Your task to perform on an android device: choose inbox layout in the gmail app Image 0: 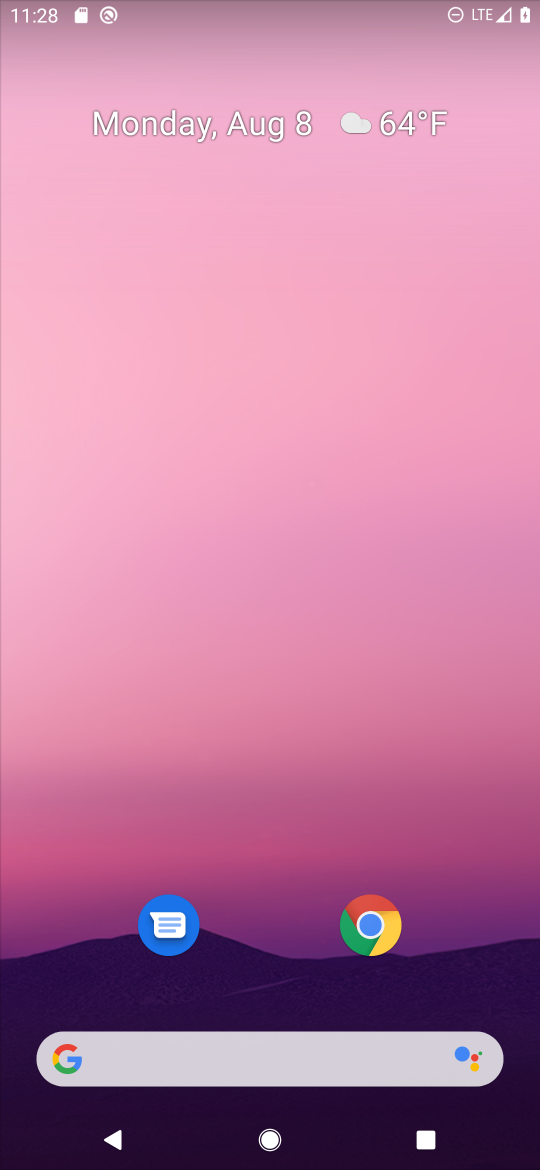
Step 0: drag from (252, 967) to (305, 167)
Your task to perform on an android device: choose inbox layout in the gmail app Image 1: 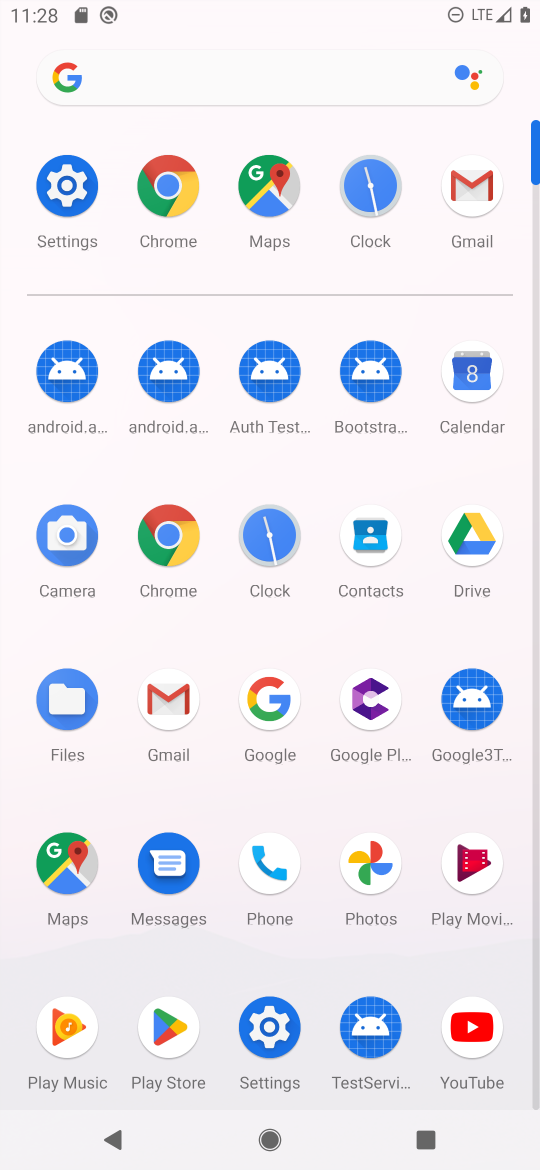
Step 1: click (174, 698)
Your task to perform on an android device: choose inbox layout in the gmail app Image 2: 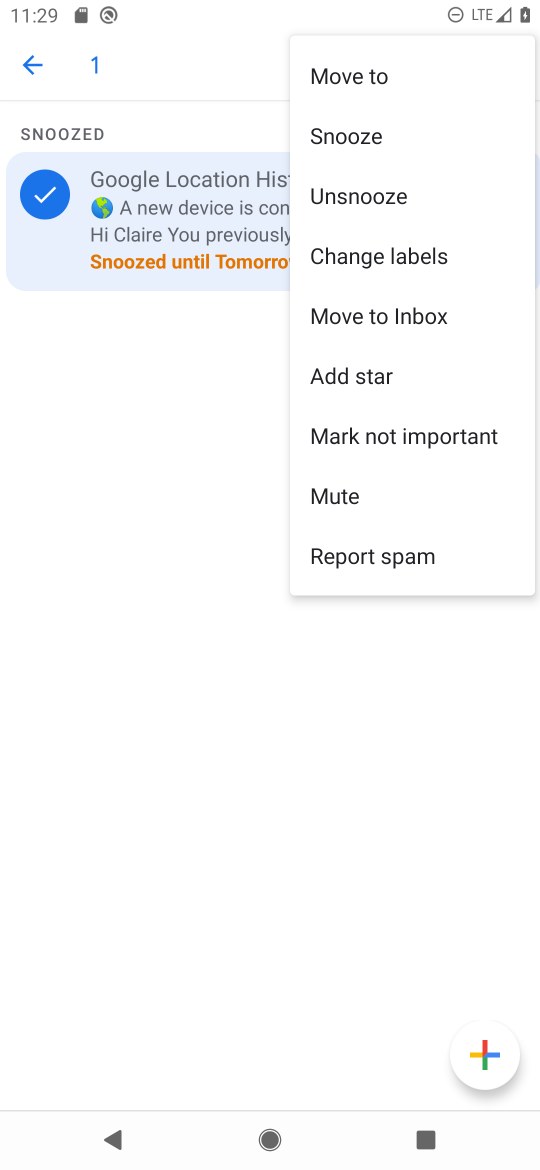
Step 2: click (166, 699)
Your task to perform on an android device: choose inbox layout in the gmail app Image 3: 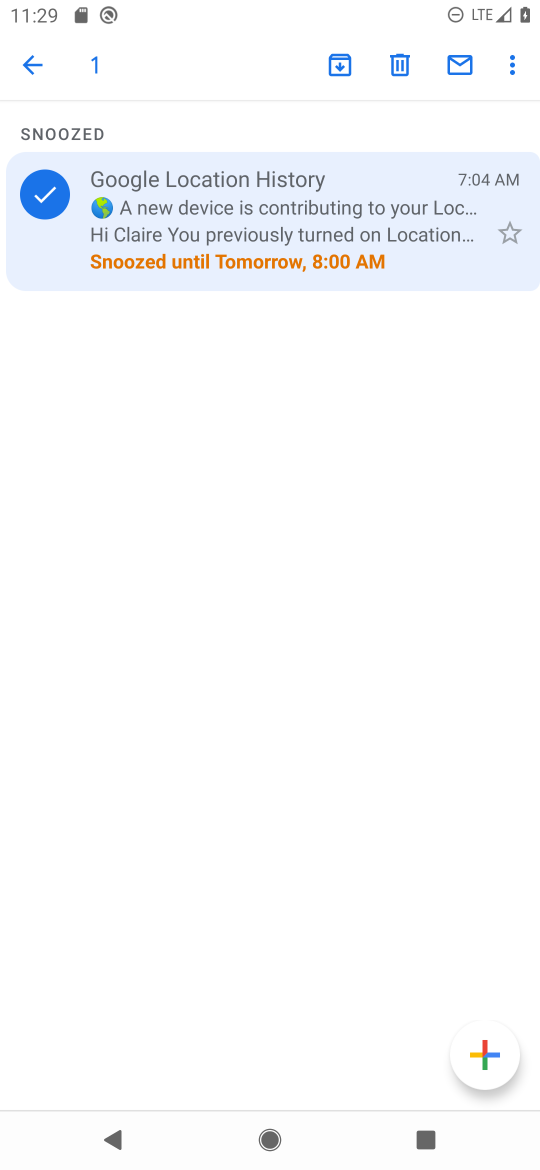
Step 3: click (15, 54)
Your task to perform on an android device: choose inbox layout in the gmail app Image 4: 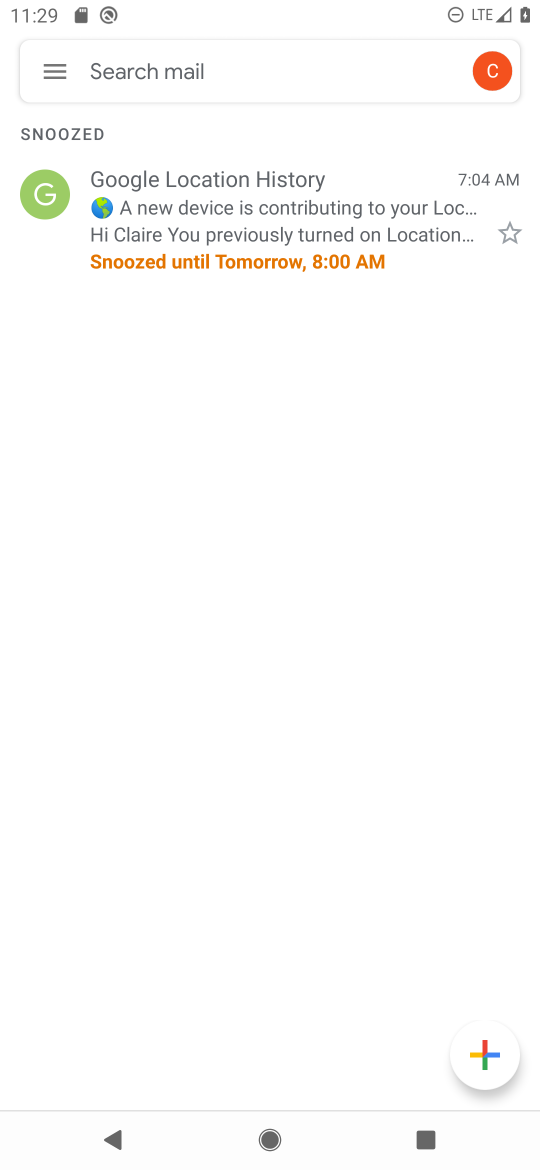
Step 4: click (60, 69)
Your task to perform on an android device: choose inbox layout in the gmail app Image 5: 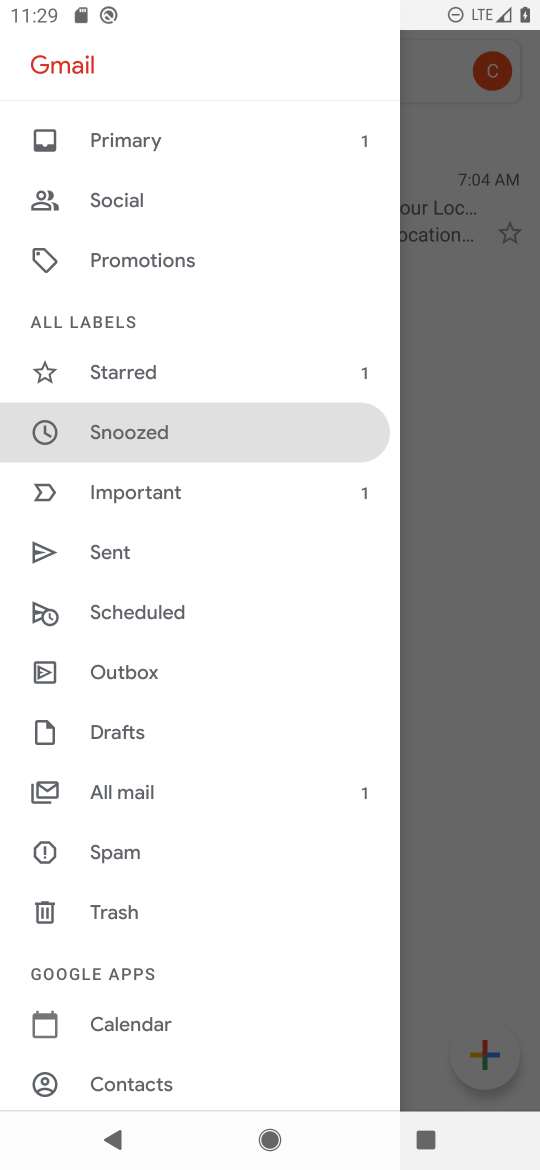
Step 5: drag from (201, 984) to (244, 530)
Your task to perform on an android device: choose inbox layout in the gmail app Image 6: 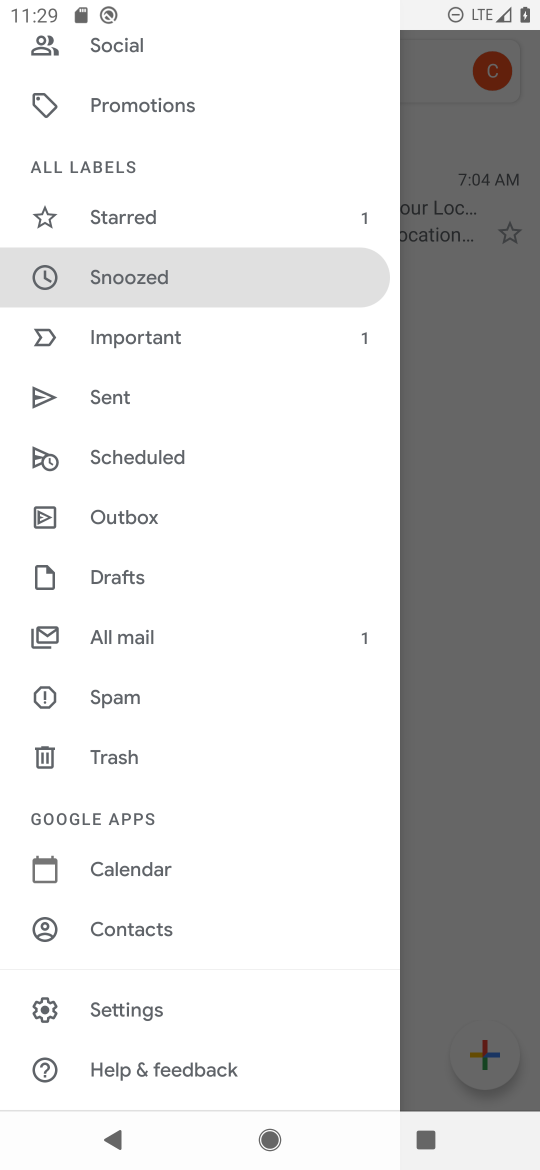
Step 6: click (106, 1020)
Your task to perform on an android device: choose inbox layout in the gmail app Image 7: 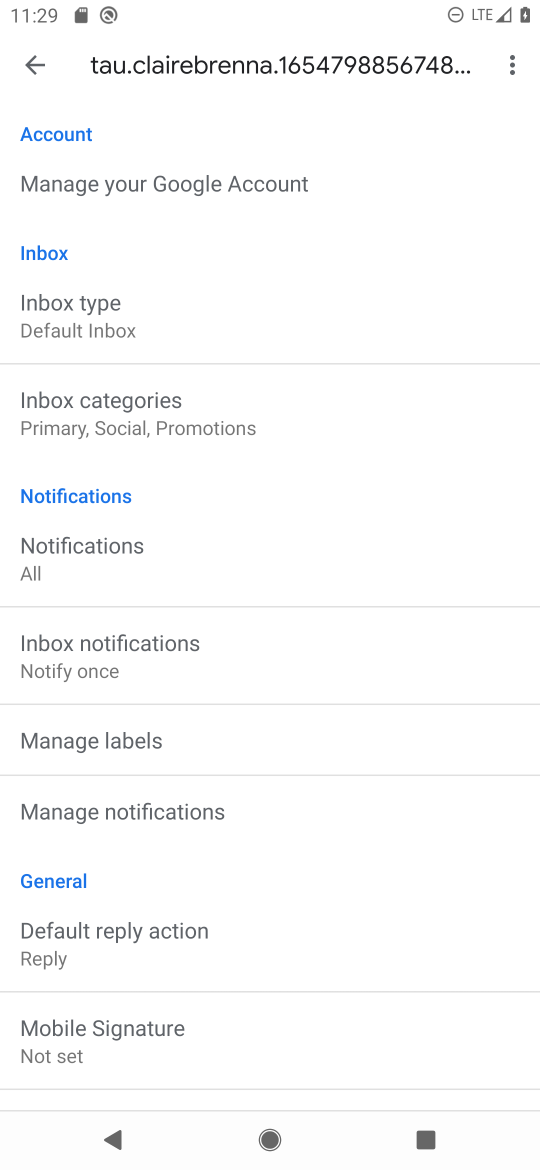
Step 7: click (124, 324)
Your task to perform on an android device: choose inbox layout in the gmail app Image 8: 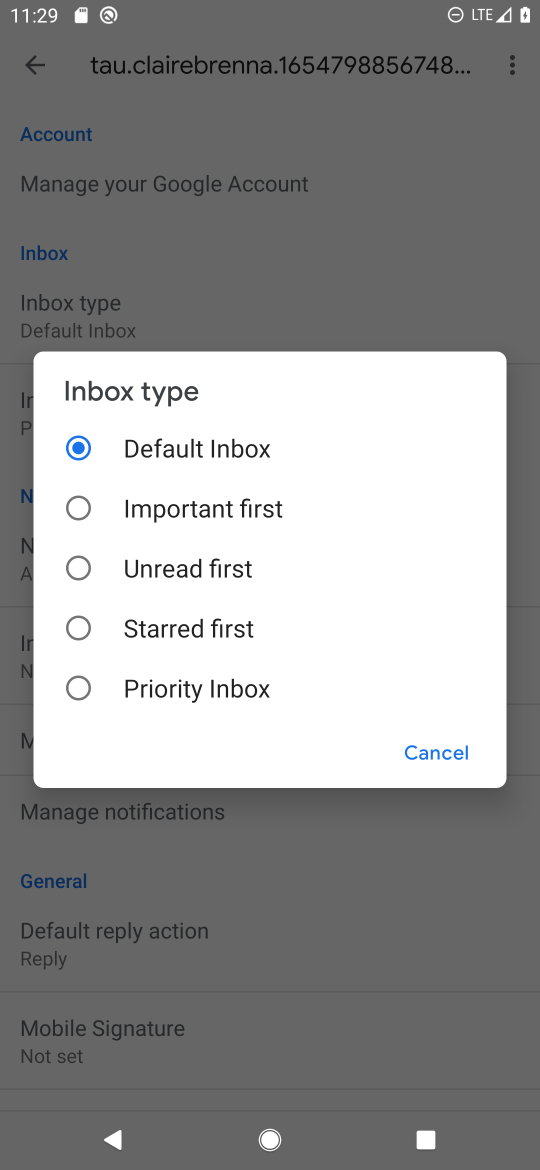
Step 8: task complete